Your task to perform on an android device: Search for dell xps on bestbuy.com, select the first entry, and add it to the cart. Image 0: 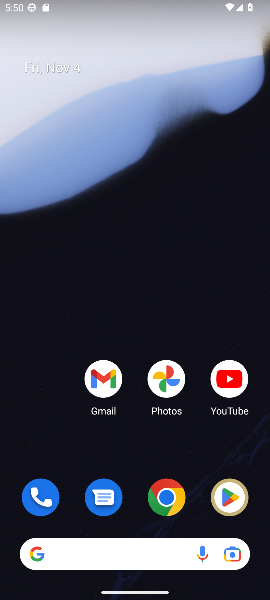
Step 0: click (169, 503)
Your task to perform on an android device: Search for dell xps on bestbuy.com, select the first entry, and add it to the cart. Image 1: 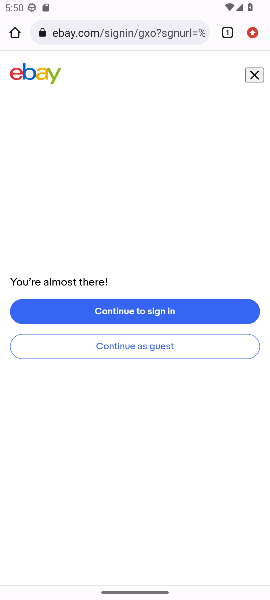
Step 1: click (102, 40)
Your task to perform on an android device: Search for dell xps on bestbuy.com, select the first entry, and add it to the cart. Image 2: 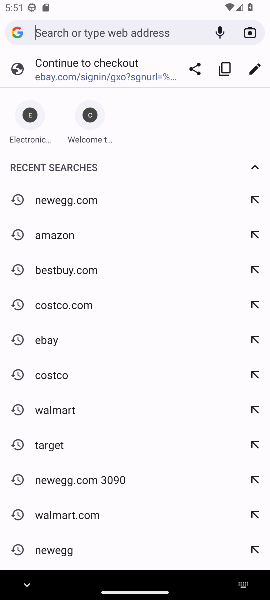
Step 2: click (44, 270)
Your task to perform on an android device: Search for dell xps on bestbuy.com, select the first entry, and add it to the cart. Image 3: 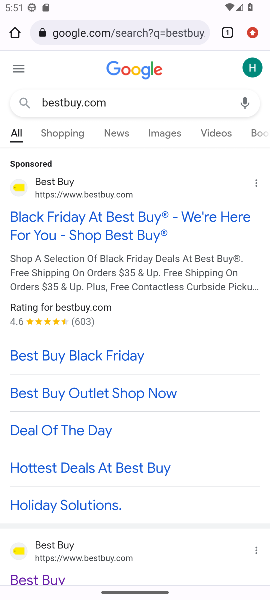
Step 3: drag from (86, 358) to (113, 175)
Your task to perform on an android device: Search for dell xps on bestbuy.com, select the first entry, and add it to the cart. Image 4: 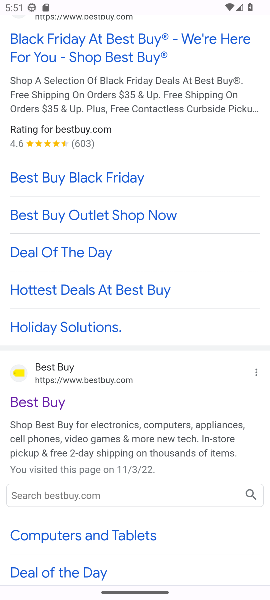
Step 4: click (50, 402)
Your task to perform on an android device: Search for dell xps on bestbuy.com, select the first entry, and add it to the cart. Image 5: 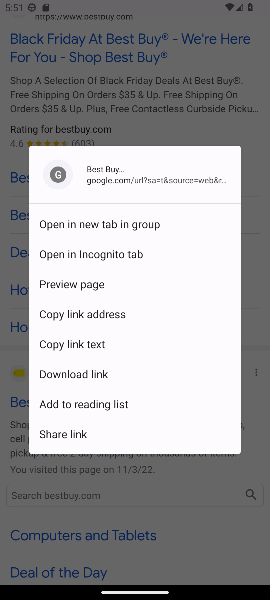
Step 5: click (17, 390)
Your task to perform on an android device: Search for dell xps on bestbuy.com, select the first entry, and add it to the cart. Image 6: 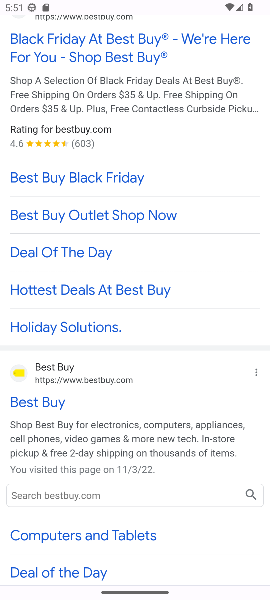
Step 6: click (75, 384)
Your task to perform on an android device: Search for dell xps on bestbuy.com, select the first entry, and add it to the cart. Image 7: 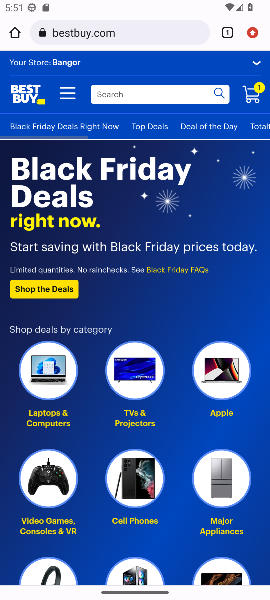
Step 7: click (134, 95)
Your task to perform on an android device: Search for dell xps on bestbuy.com, select the first entry, and add it to the cart. Image 8: 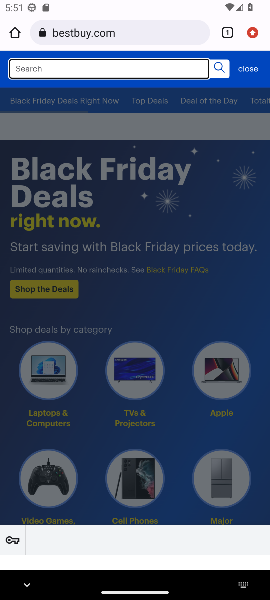
Step 8: click (95, 75)
Your task to perform on an android device: Search for dell xps on bestbuy.com, select the first entry, and add it to the cart. Image 9: 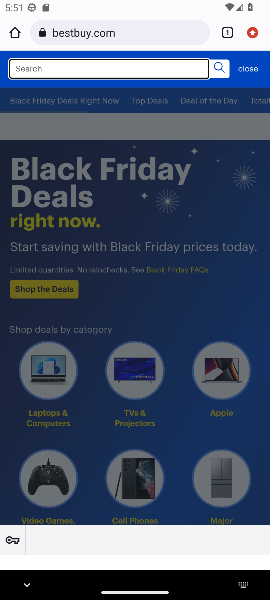
Step 9: type "dell xps"
Your task to perform on an android device: Search for dell xps on bestbuy.com, select the first entry, and add it to the cart. Image 10: 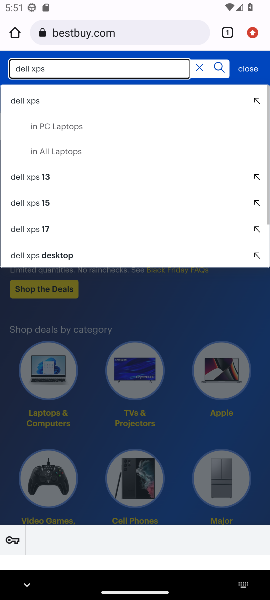
Step 10: click (33, 103)
Your task to perform on an android device: Search for dell xps on bestbuy.com, select the first entry, and add it to the cart. Image 11: 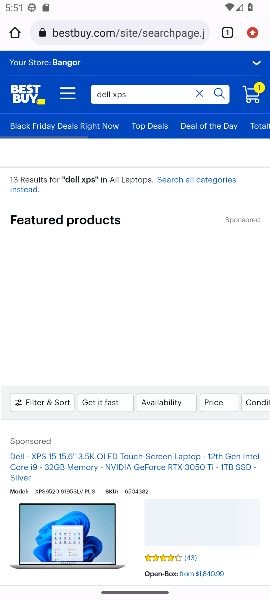
Step 11: drag from (130, 449) to (135, 292)
Your task to perform on an android device: Search for dell xps on bestbuy.com, select the first entry, and add it to the cart. Image 12: 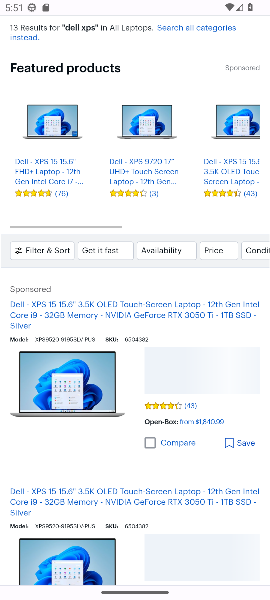
Step 12: click (72, 394)
Your task to perform on an android device: Search for dell xps on bestbuy.com, select the first entry, and add it to the cart. Image 13: 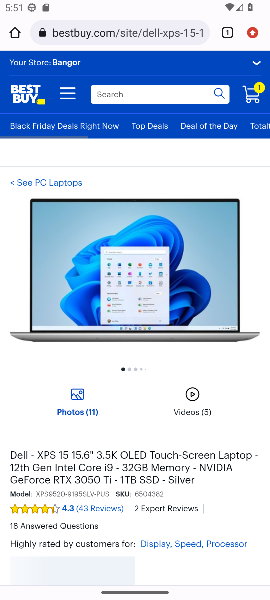
Step 13: drag from (153, 414) to (159, 137)
Your task to perform on an android device: Search for dell xps on bestbuy.com, select the first entry, and add it to the cart. Image 14: 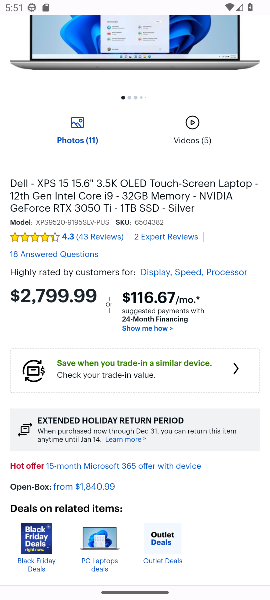
Step 14: drag from (127, 332) to (134, 80)
Your task to perform on an android device: Search for dell xps on bestbuy.com, select the first entry, and add it to the cart. Image 15: 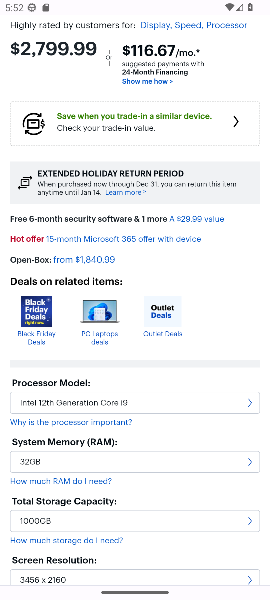
Step 15: drag from (110, 386) to (154, 102)
Your task to perform on an android device: Search for dell xps on bestbuy.com, select the first entry, and add it to the cart. Image 16: 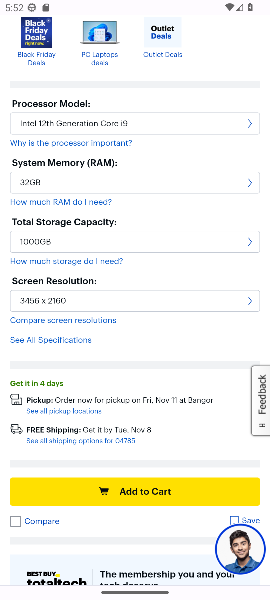
Step 16: click (153, 494)
Your task to perform on an android device: Search for dell xps on bestbuy.com, select the first entry, and add it to the cart. Image 17: 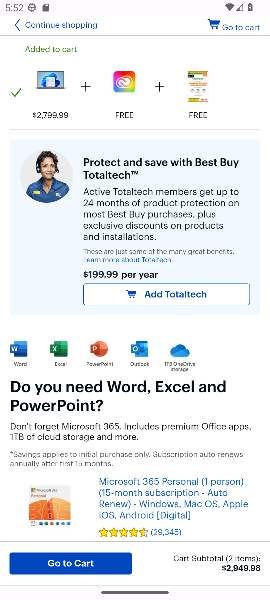
Step 17: task complete